Your task to perform on an android device: star an email in the gmail app Image 0: 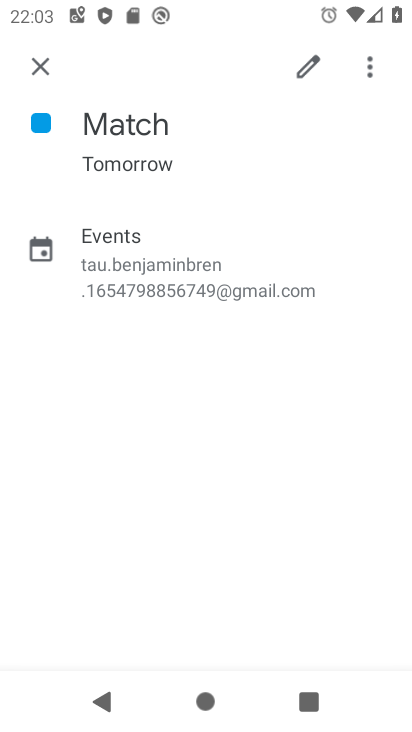
Step 0: press home button
Your task to perform on an android device: star an email in the gmail app Image 1: 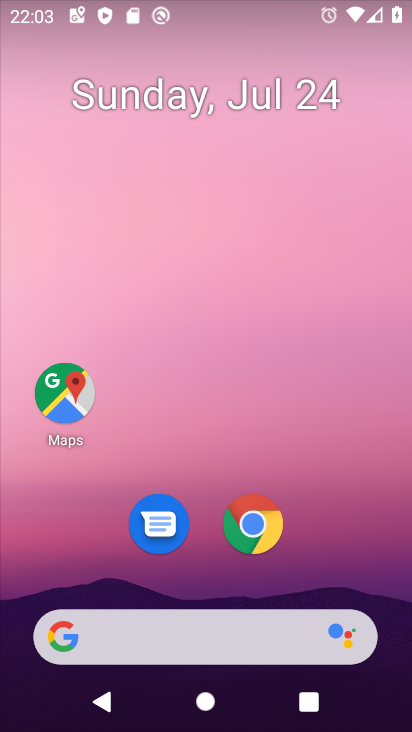
Step 1: drag from (172, 635) to (373, 76)
Your task to perform on an android device: star an email in the gmail app Image 2: 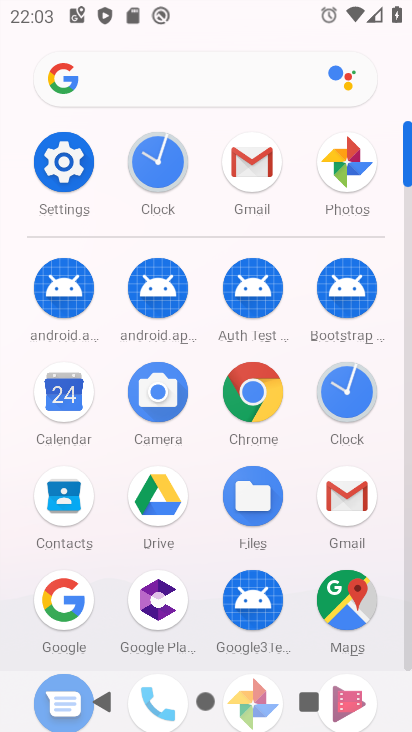
Step 2: click (262, 172)
Your task to perform on an android device: star an email in the gmail app Image 3: 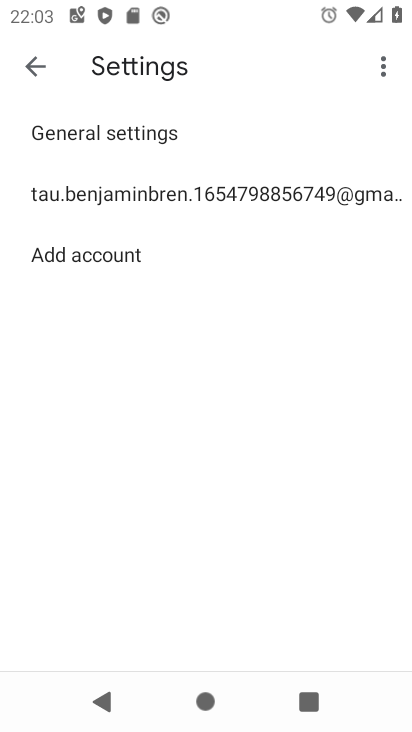
Step 3: press home button
Your task to perform on an android device: star an email in the gmail app Image 4: 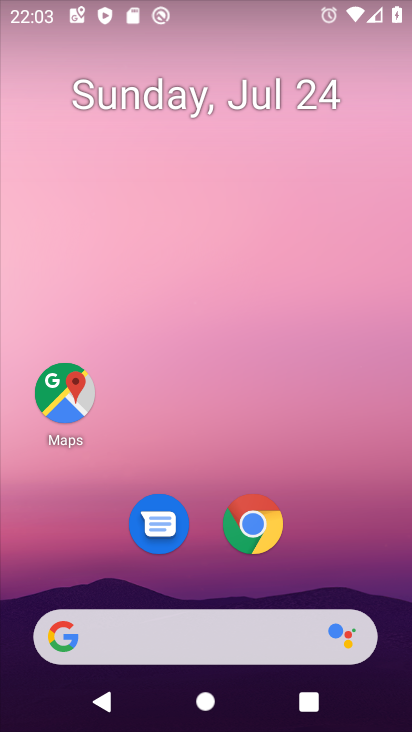
Step 4: drag from (231, 634) to (395, 229)
Your task to perform on an android device: star an email in the gmail app Image 5: 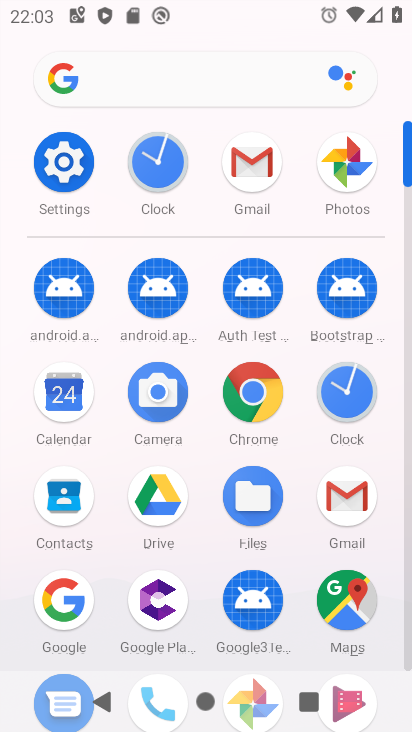
Step 5: click (248, 177)
Your task to perform on an android device: star an email in the gmail app Image 6: 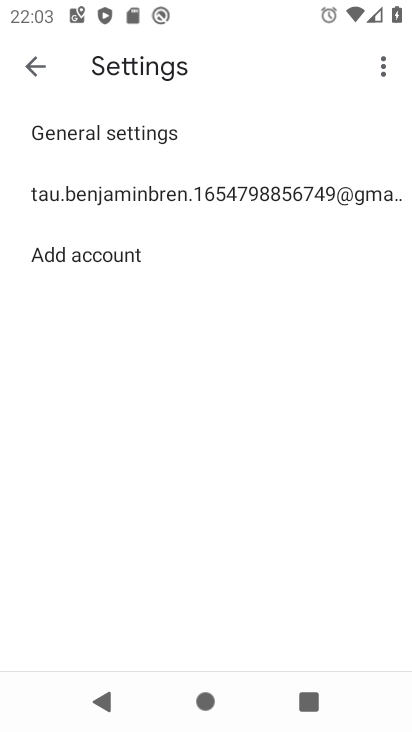
Step 6: click (29, 63)
Your task to perform on an android device: star an email in the gmail app Image 7: 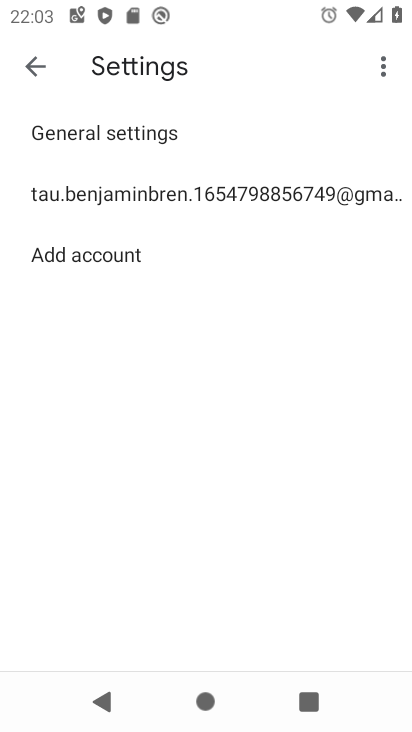
Step 7: click (25, 67)
Your task to perform on an android device: star an email in the gmail app Image 8: 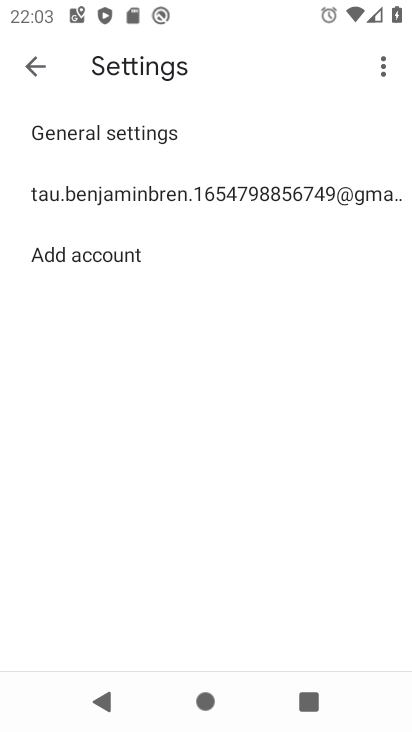
Step 8: click (38, 73)
Your task to perform on an android device: star an email in the gmail app Image 9: 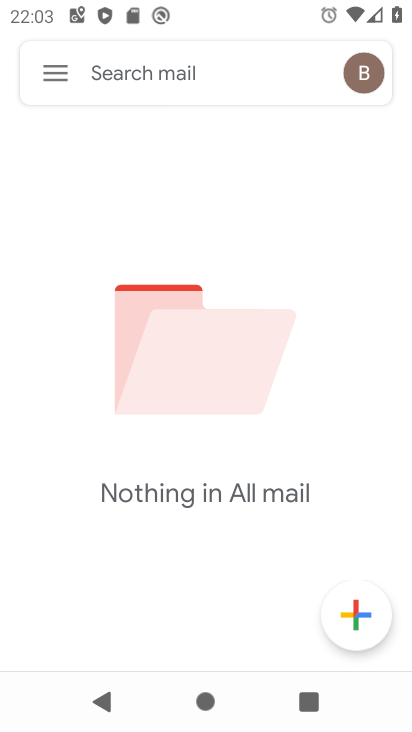
Step 9: task complete